Your task to perform on an android device: turn on translation in the chrome app Image 0: 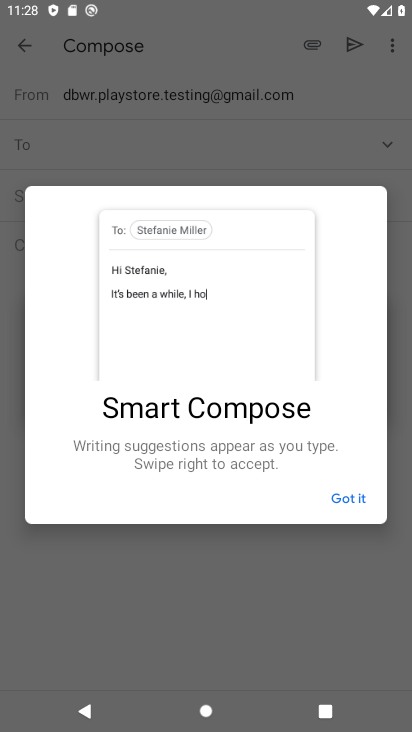
Step 0: press back button
Your task to perform on an android device: turn on translation in the chrome app Image 1: 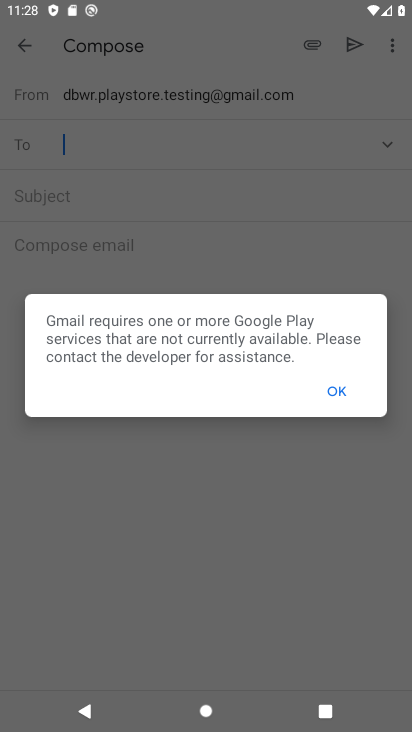
Step 1: press home button
Your task to perform on an android device: turn on translation in the chrome app Image 2: 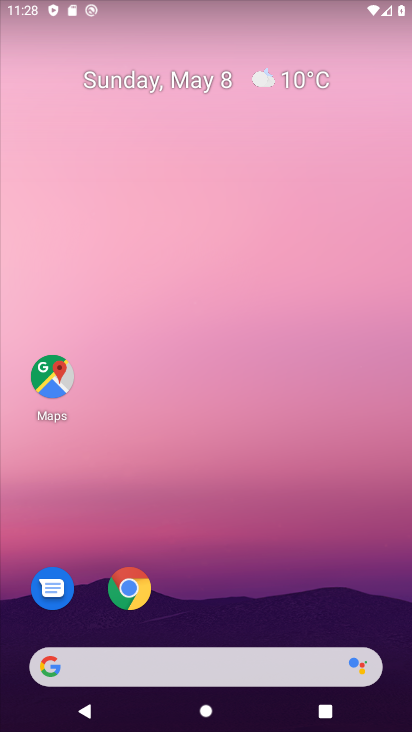
Step 2: click (122, 584)
Your task to perform on an android device: turn on translation in the chrome app Image 3: 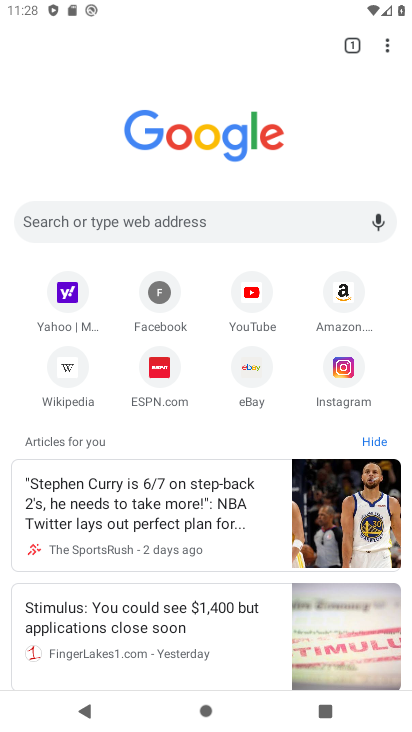
Step 3: drag from (390, 47) to (249, 373)
Your task to perform on an android device: turn on translation in the chrome app Image 4: 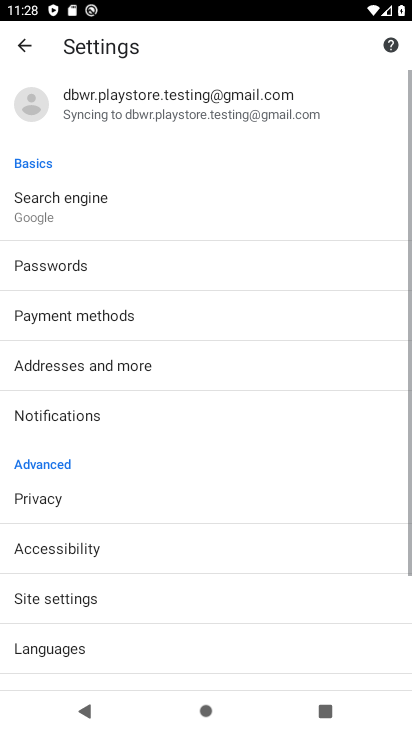
Step 4: click (61, 642)
Your task to perform on an android device: turn on translation in the chrome app Image 5: 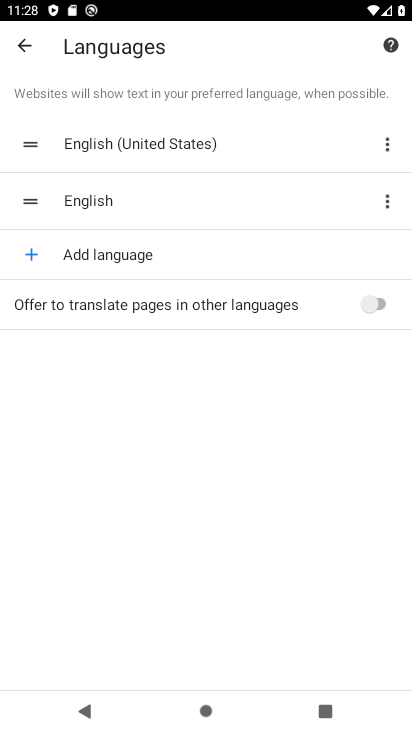
Step 5: click (375, 305)
Your task to perform on an android device: turn on translation in the chrome app Image 6: 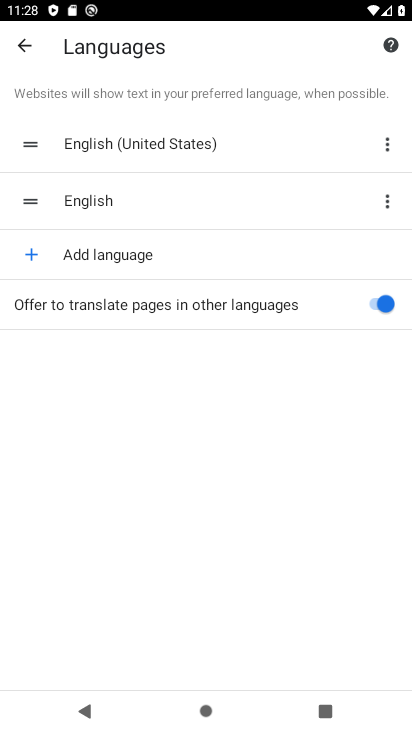
Step 6: task complete